Your task to perform on an android device: Open the web browser Image 0: 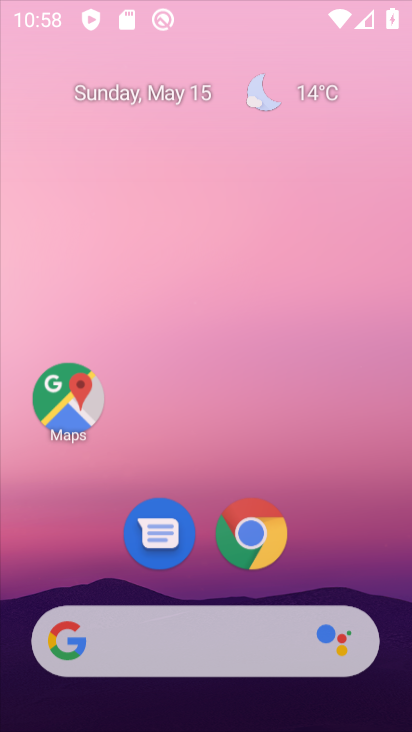
Step 0: click (280, 558)
Your task to perform on an android device: Open the web browser Image 1: 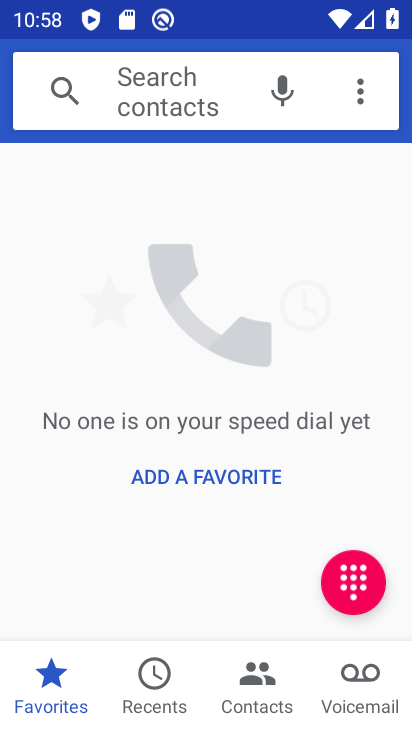
Step 1: press home button
Your task to perform on an android device: Open the web browser Image 2: 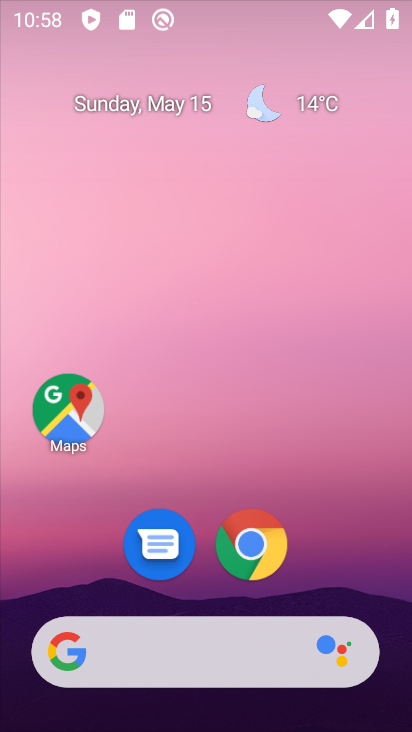
Step 2: drag from (147, 577) to (275, 60)
Your task to perform on an android device: Open the web browser Image 3: 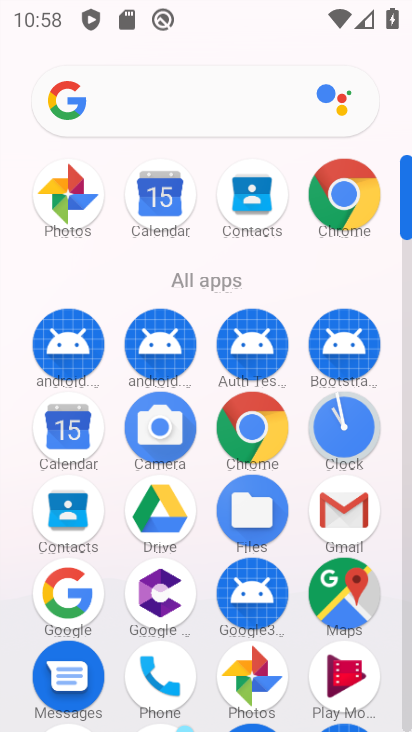
Step 3: click (88, 621)
Your task to perform on an android device: Open the web browser Image 4: 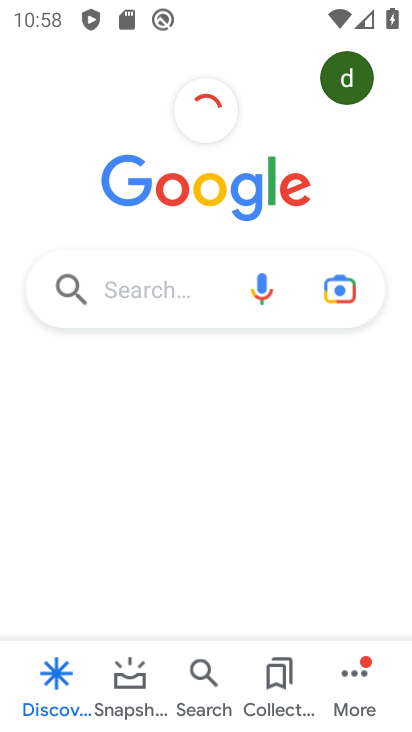
Step 4: task complete